Your task to perform on an android device: What's the weather? Image 0: 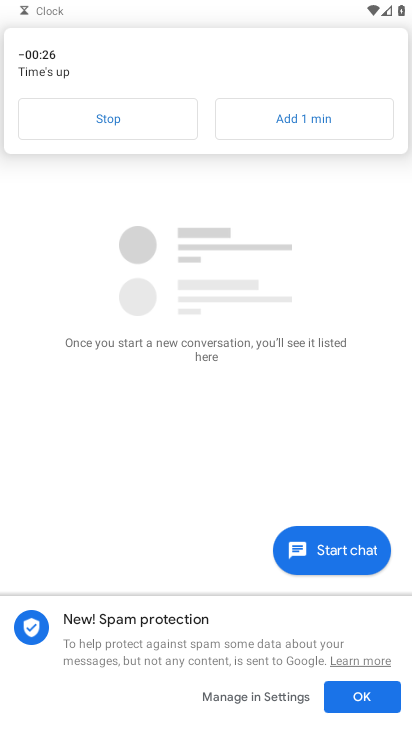
Step 0: click (125, 114)
Your task to perform on an android device: What's the weather? Image 1: 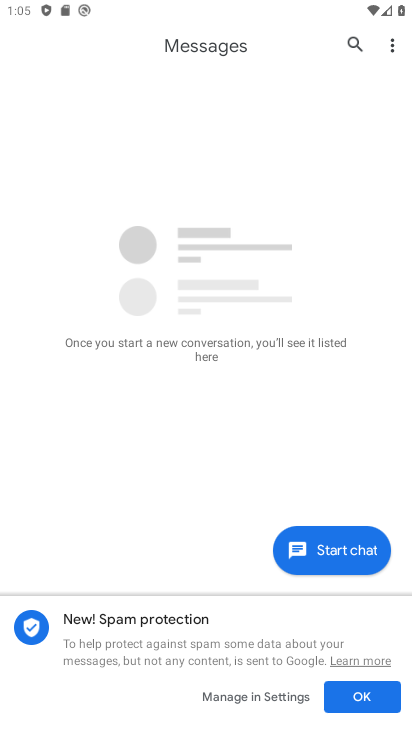
Step 1: press home button
Your task to perform on an android device: What's the weather? Image 2: 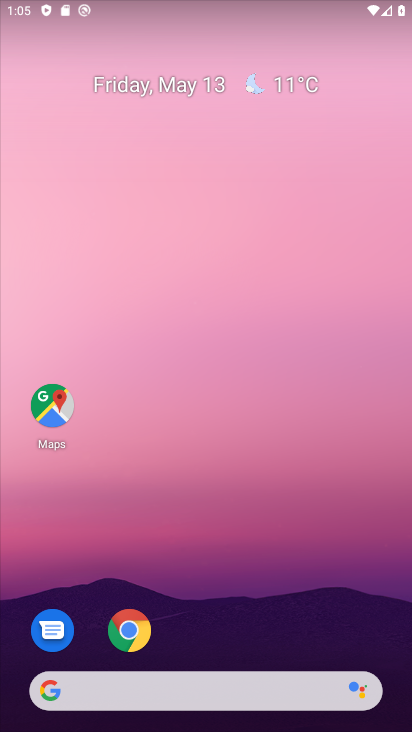
Step 2: click (295, 80)
Your task to perform on an android device: What's the weather? Image 3: 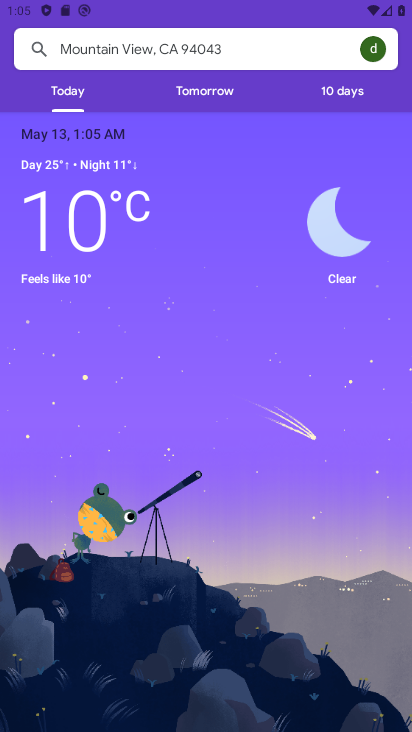
Step 3: task complete